Your task to perform on an android device: Go to privacy settings Image 0: 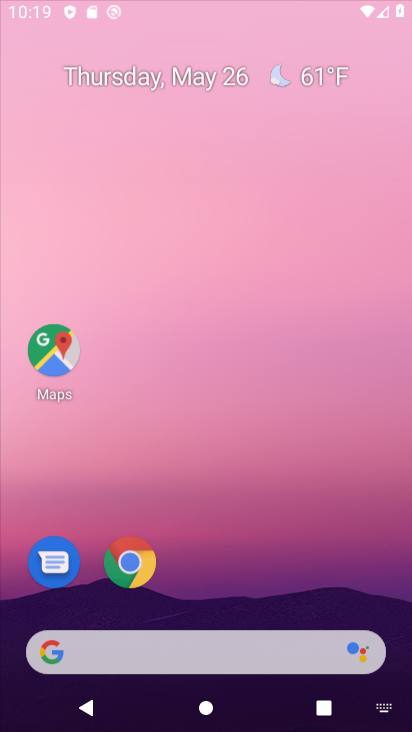
Step 0: press home button
Your task to perform on an android device: Go to privacy settings Image 1: 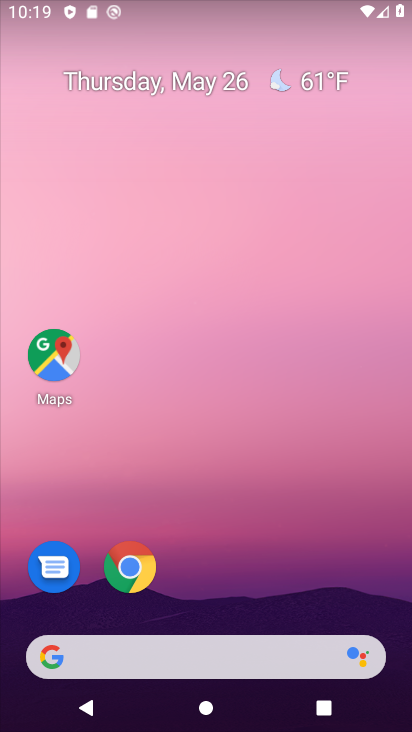
Step 1: drag from (208, 613) to (290, 27)
Your task to perform on an android device: Go to privacy settings Image 2: 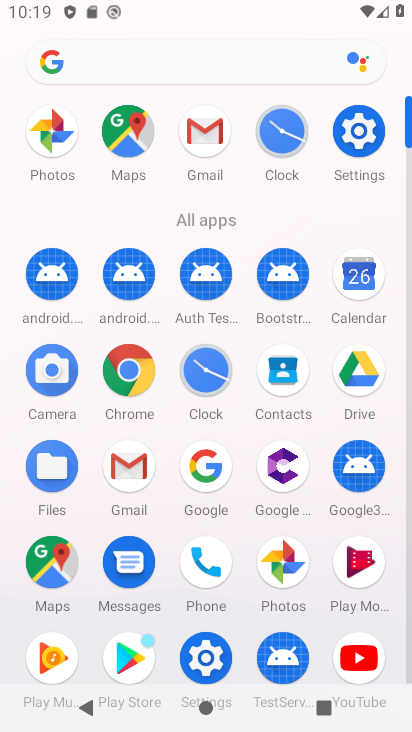
Step 2: click (362, 125)
Your task to perform on an android device: Go to privacy settings Image 3: 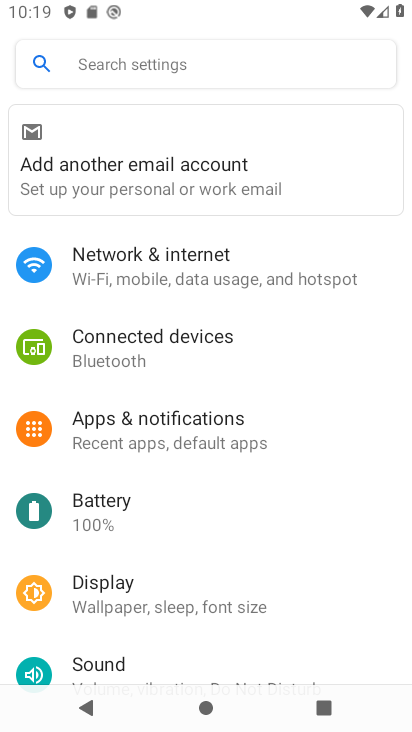
Step 3: drag from (185, 649) to (237, 307)
Your task to perform on an android device: Go to privacy settings Image 4: 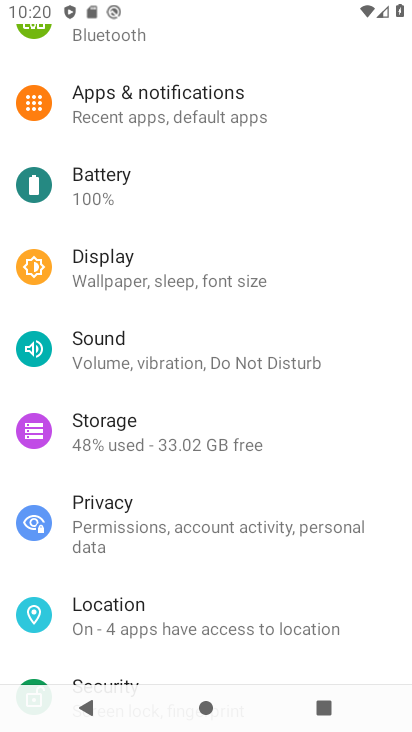
Step 4: click (149, 510)
Your task to perform on an android device: Go to privacy settings Image 5: 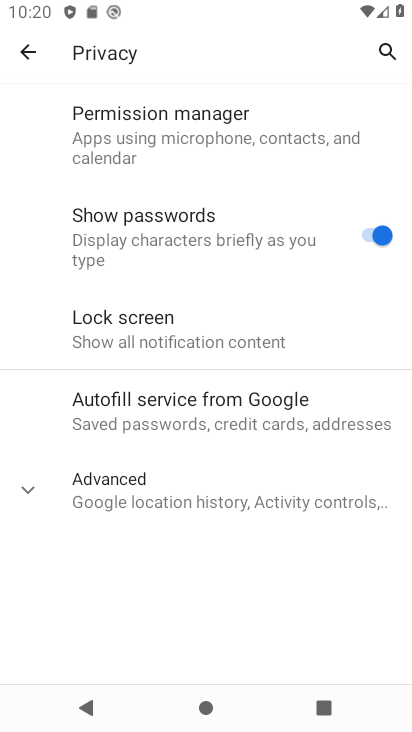
Step 5: click (60, 486)
Your task to perform on an android device: Go to privacy settings Image 6: 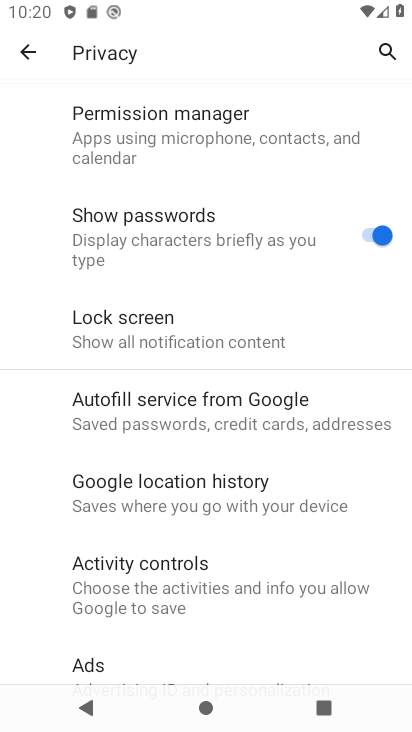
Step 6: click (30, 487)
Your task to perform on an android device: Go to privacy settings Image 7: 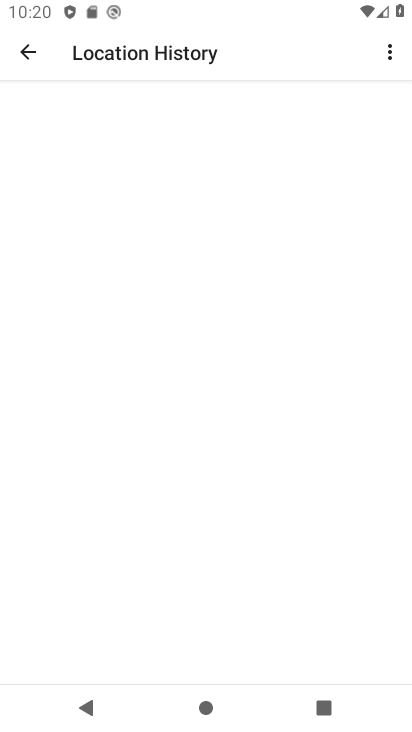
Step 7: click (30, 486)
Your task to perform on an android device: Go to privacy settings Image 8: 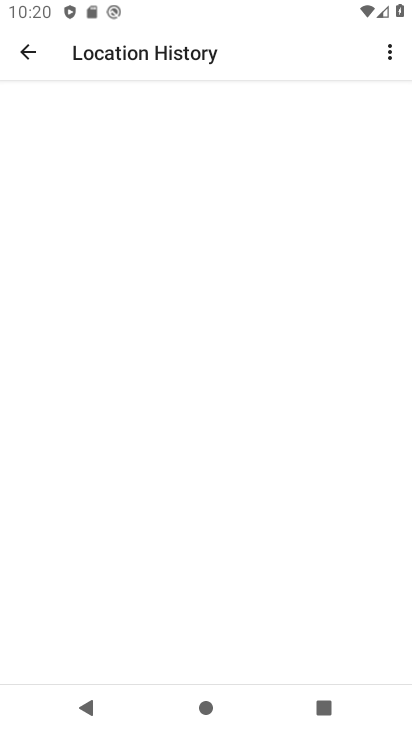
Step 8: click (226, 220)
Your task to perform on an android device: Go to privacy settings Image 9: 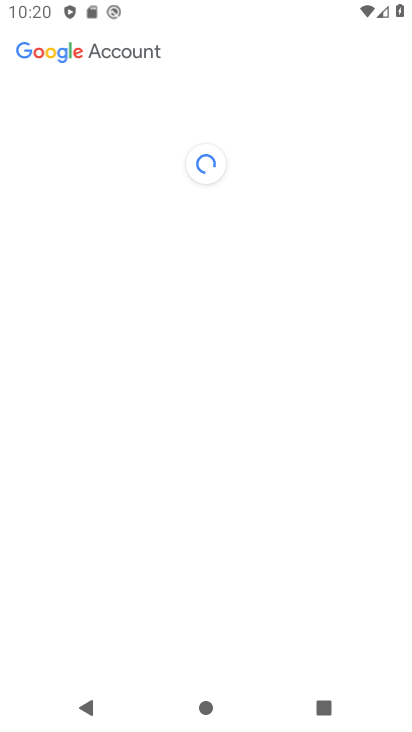
Step 9: task complete